Your task to perform on an android device: Go to Google maps Image 0: 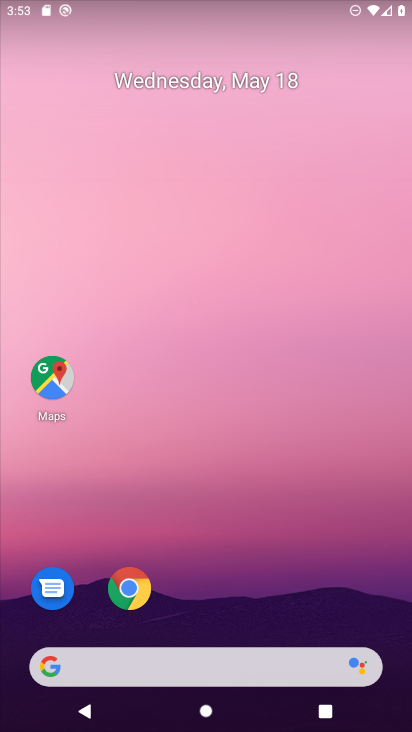
Step 0: drag from (289, 572) to (280, 18)
Your task to perform on an android device: Go to Google maps Image 1: 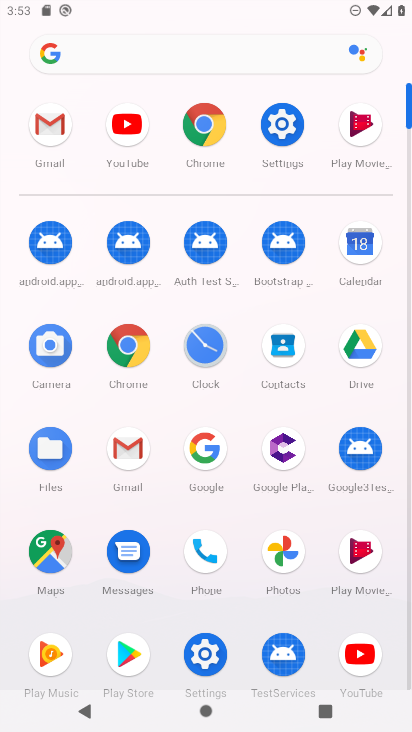
Step 1: click (62, 544)
Your task to perform on an android device: Go to Google maps Image 2: 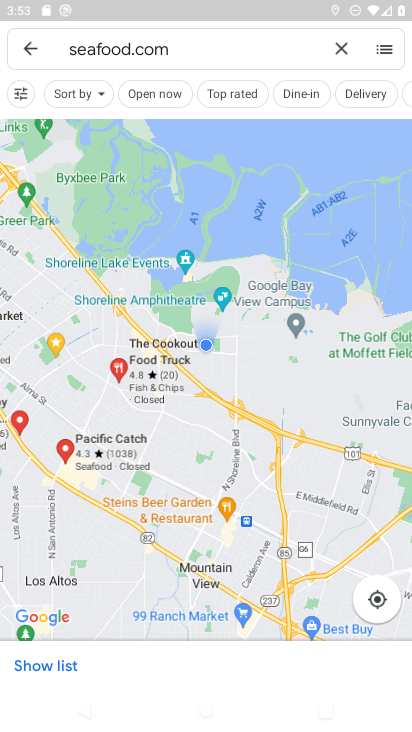
Step 2: task complete